Your task to perform on an android device: turn off improve location accuracy Image 0: 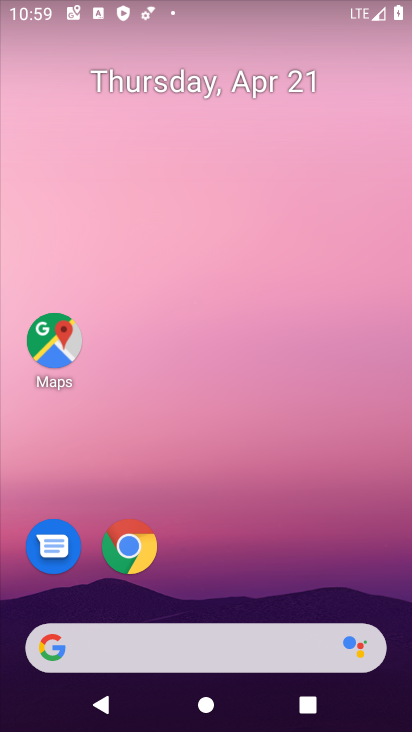
Step 0: drag from (395, 616) to (347, 65)
Your task to perform on an android device: turn off improve location accuracy Image 1: 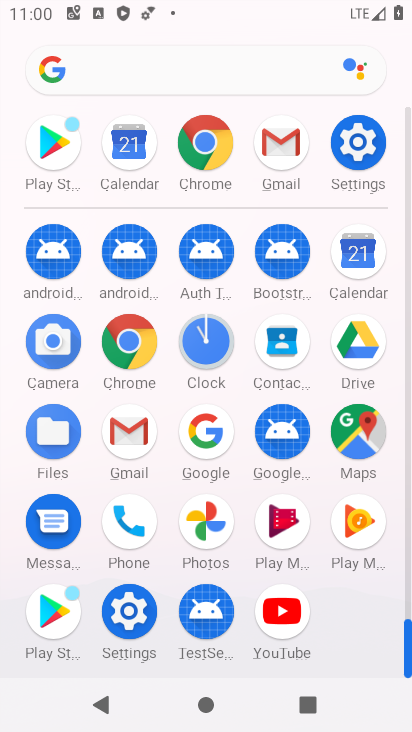
Step 1: click (131, 610)
Your task to perform on an android device: turn off improve location accuracy Image 2: 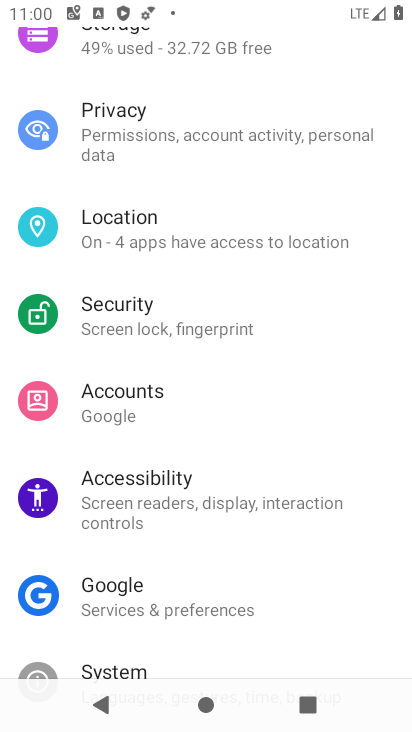
Step 2: click (114, 223)
Your task to perform on an android device: turn off improve location accuracy Image 3: 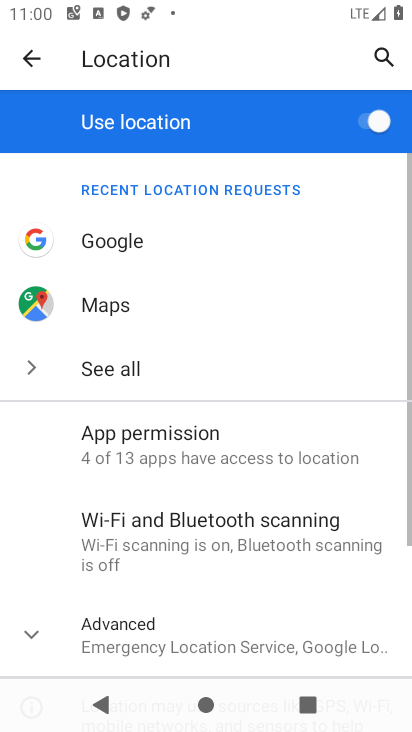
Step 3: click (23, 629)
Your task to perform on an android device: turn off improve location accuracy Image 4: 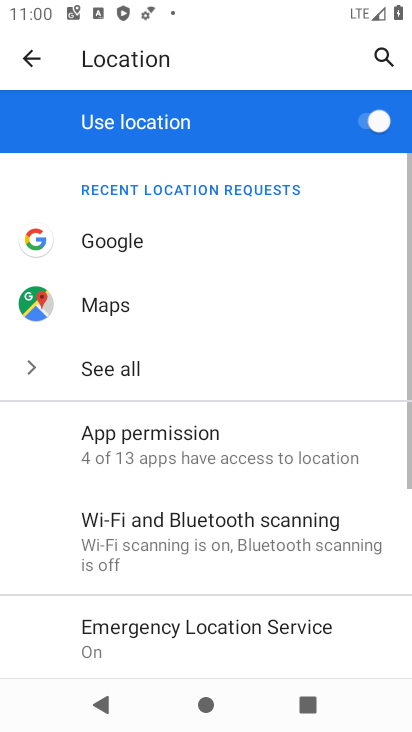
Step 4: drag from (301, 595) to (341, 173)
Your task to perform on an android device: turn off improve location accuracy Image 5: 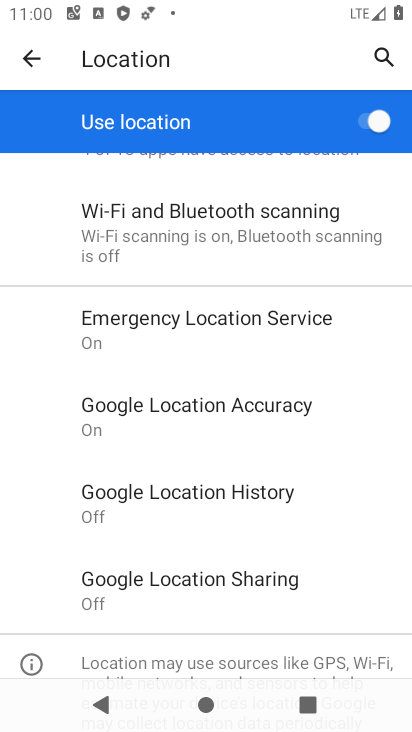
Step 5: click (140, 408)
Your task to perform on an android device: turn off improve location accuracy Image 6: 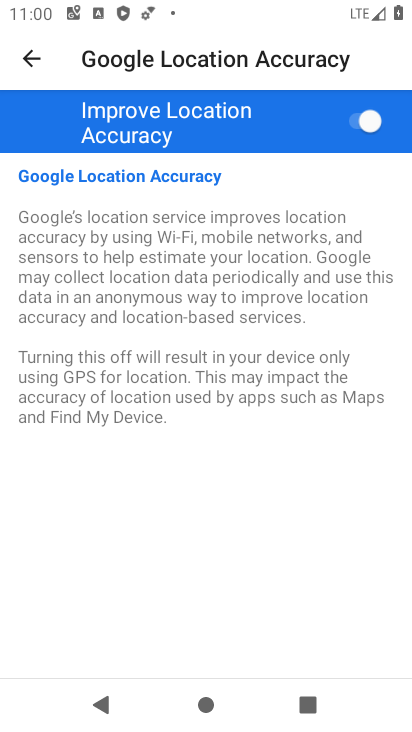
Step 6: click (349, 120)
Your task to perform on an android device: turn off improve location accuracy Image 7: 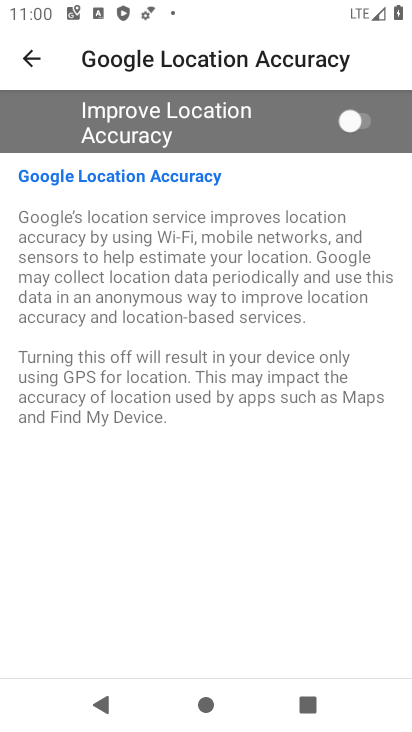
Step 7: task complete